Your task to perform on an android device: check google app version Image 0: 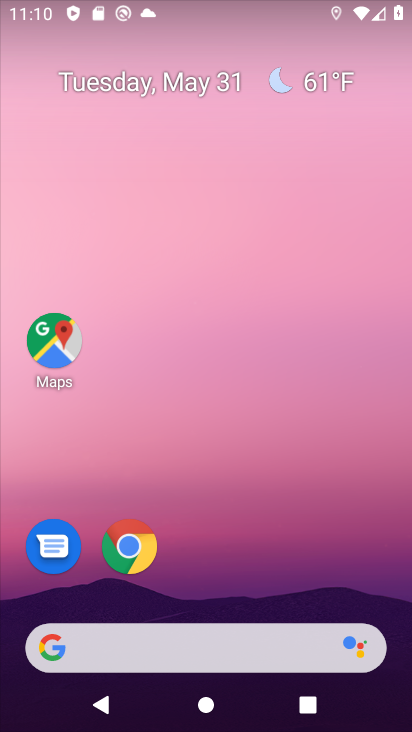
Step 0: drag from (217, 623) to (251, 704)
Your task to perform on an android device: check google app version Image 1: 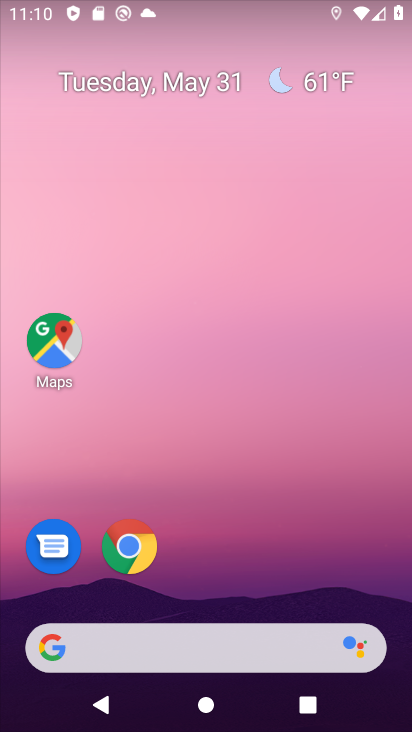
Step 1: drag from (192, 612) to (259, 59)
Your task to perform on an android device: check google app version Image 2: 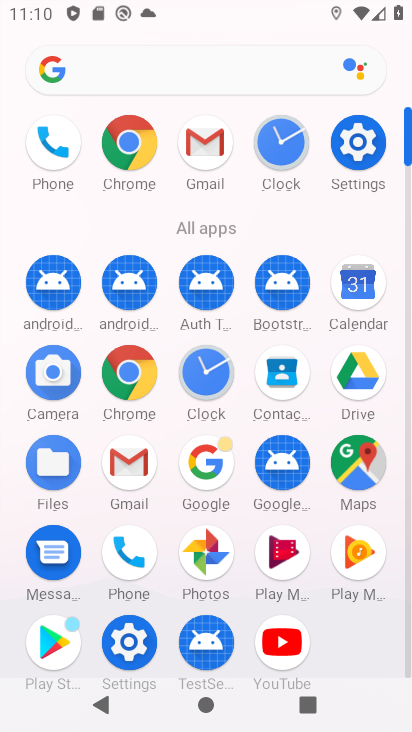
Step 2: click (204, 499)
Your task to perform on an android device: check google app version Image 3: 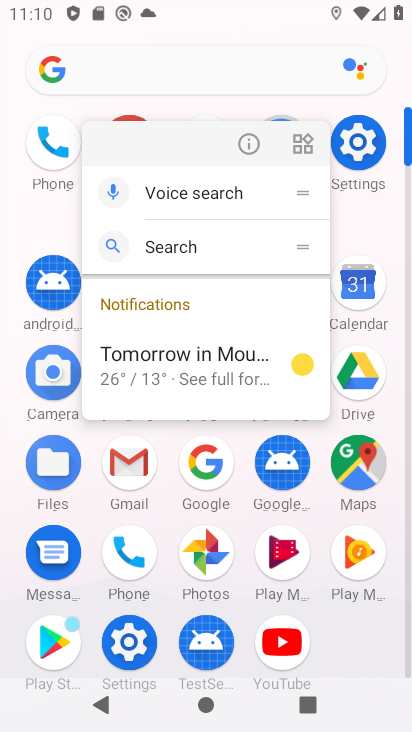
Step 3: click (237, 153)
Your task to perform on an android device: check google app version Image 4: 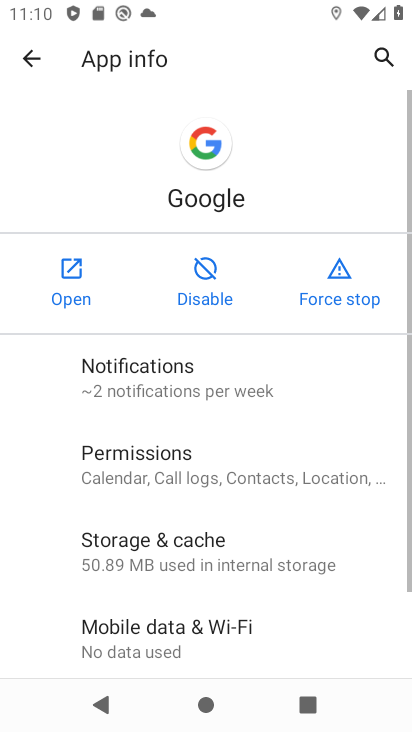
Step 4: drag from (220, 638) to (176, 109)
Your task to perform on an android device: check google app version Image 5: 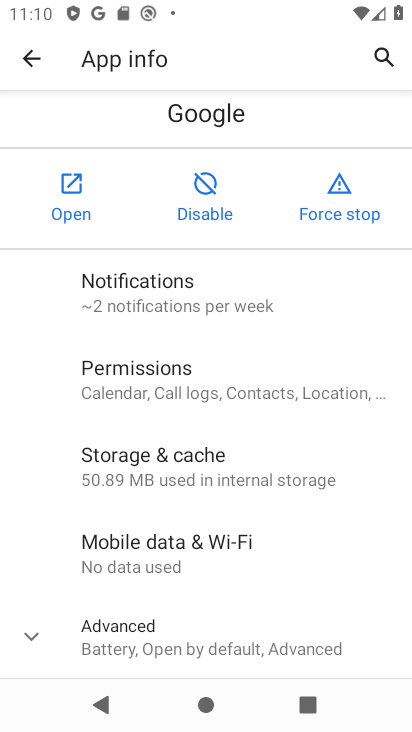
Step 5: click (151, 627)
Your task to perform on an android device: check google app version Image 6: 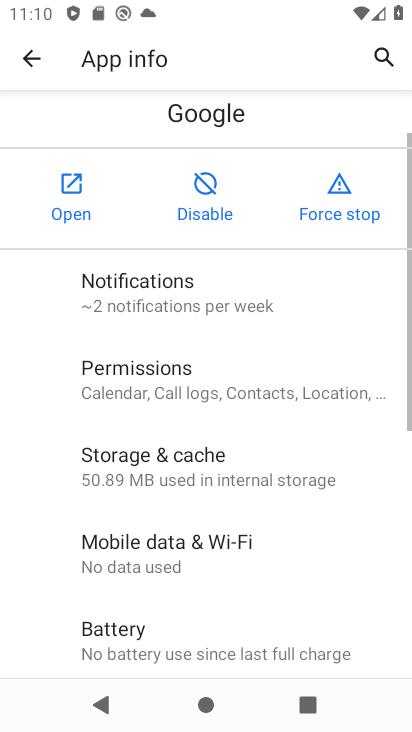
Step 6: task complete